Your task to perform on an android device: Open CNN.com Image 0: 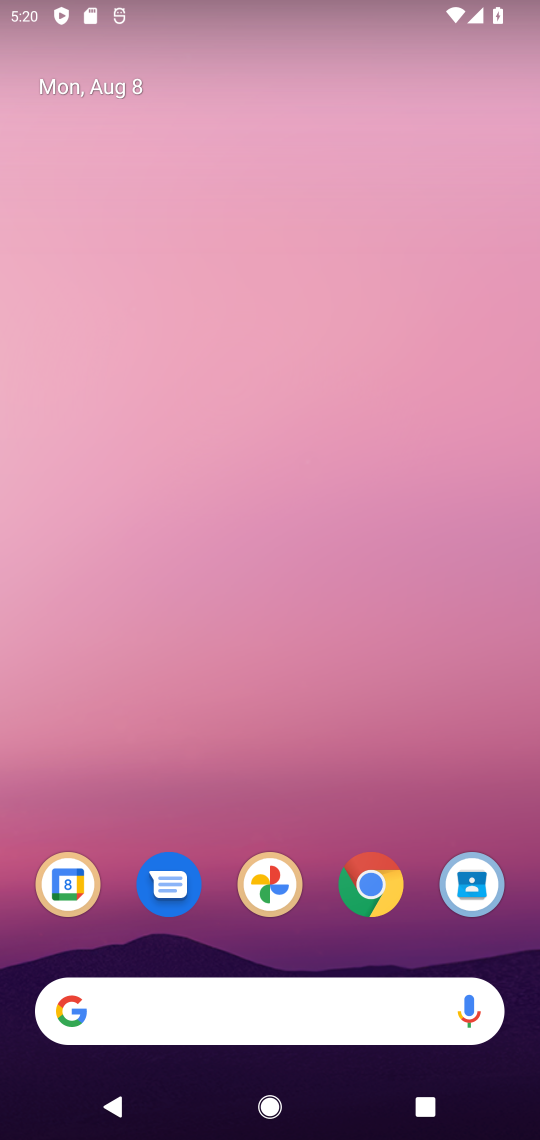
Step 0: click (369, 887)
Your task to perform on an android device: Open CNN.com Image 1: 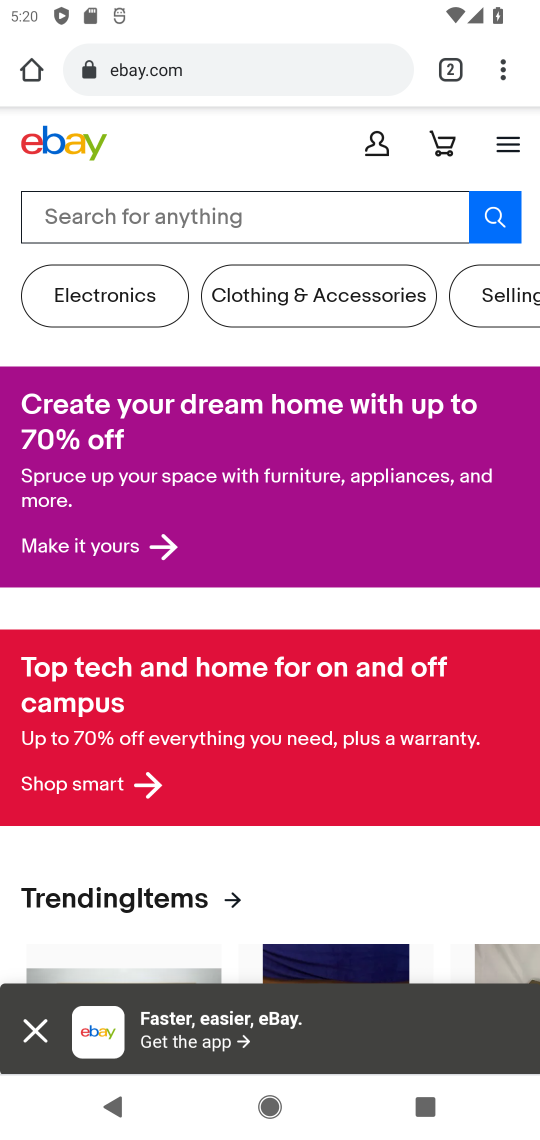
Step 1: click (264, 72)
Your task to perform on an android device: Open CNN.com Image 2: 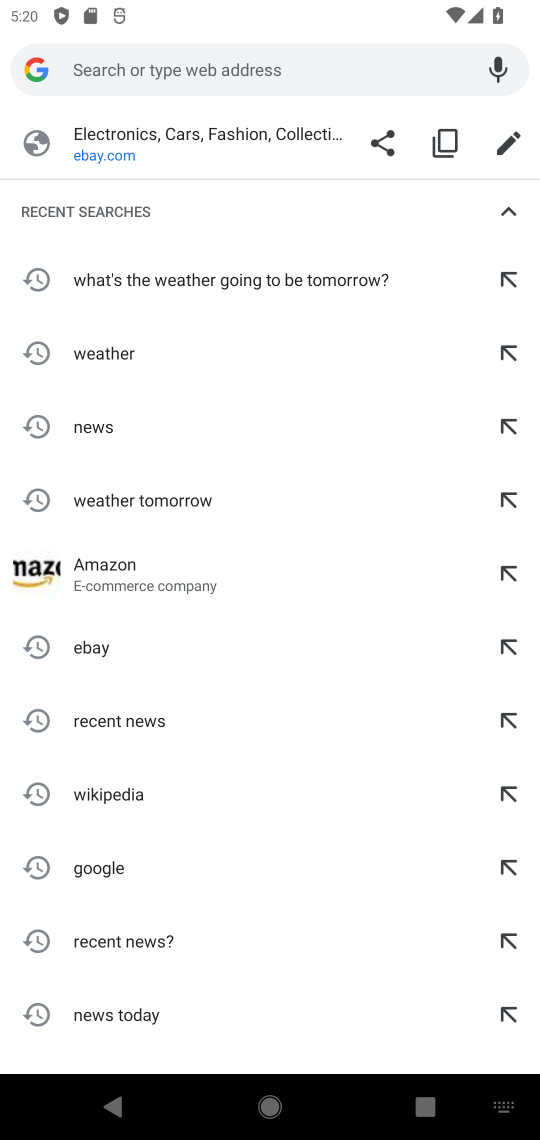
Step 2: type "cnn.com"
Your task to perform on an android device: Open CNN.com Image 3: 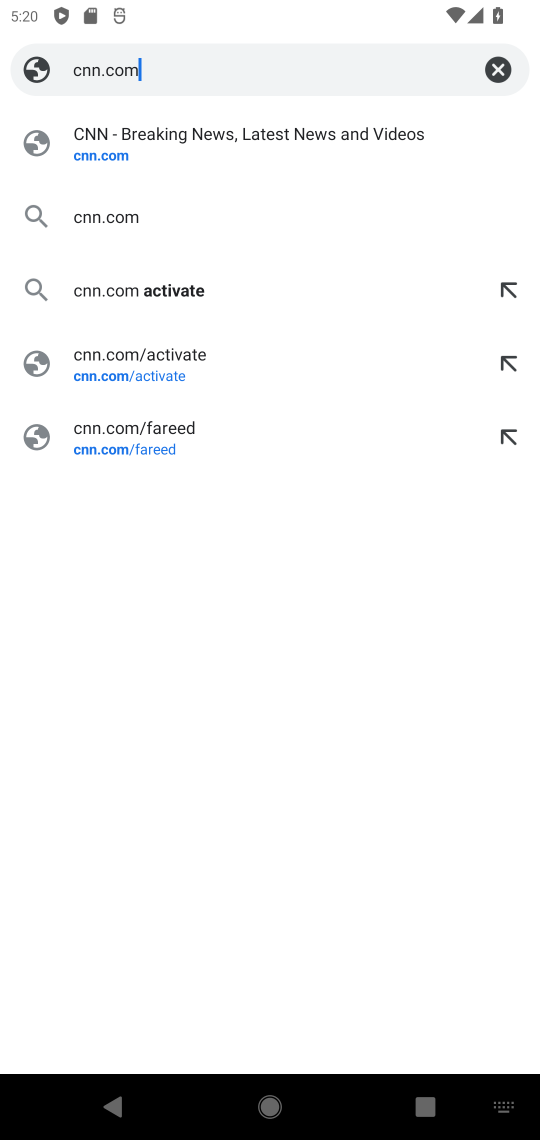
Step 3: click (169, 165)
Your task to perform on an android device: Open CNN.com Image 4: 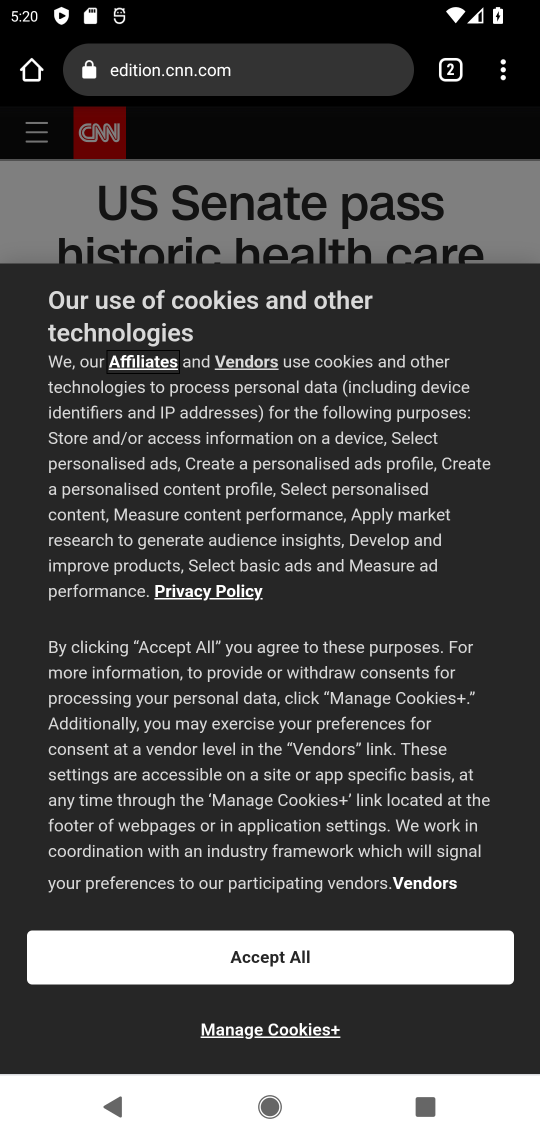
Step 4: task complete